Your task to perform on an android device: Open ESPN.com Image 0: 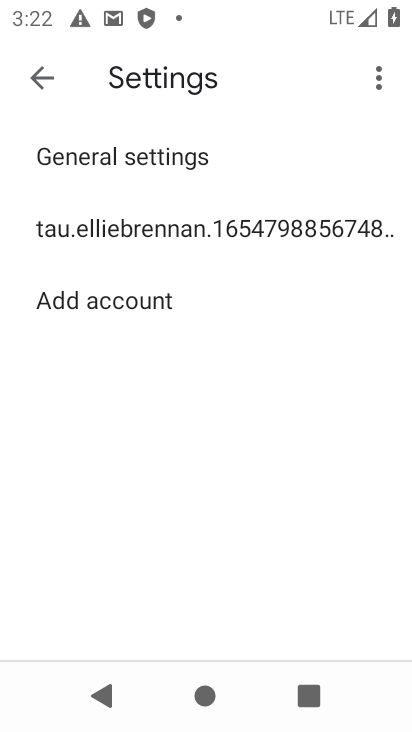
Step 0: press home button
Your task to perform on an android device: Open ESPN.com Image 1: 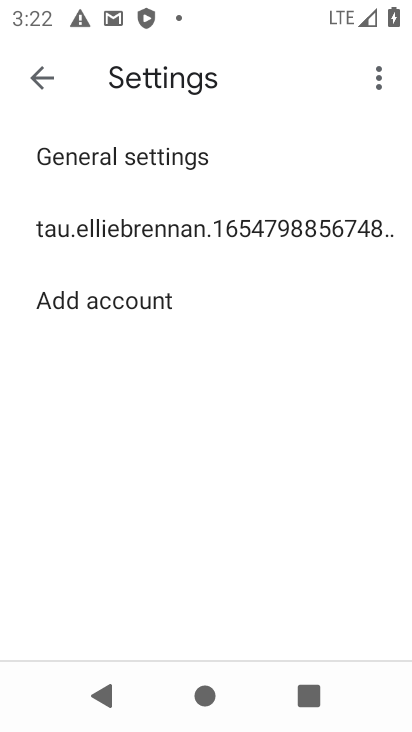
Step 1: press home button
Your task to perform on an android device: Open ESPN.com Image 2: 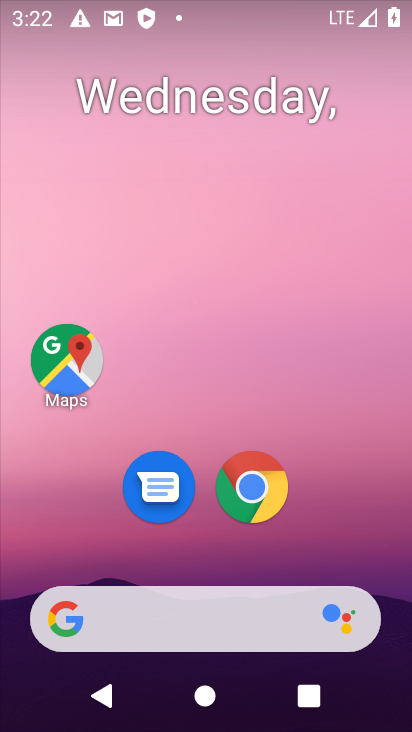
Step 2: drag from (334, 543) to (230, 0)
Your task to perform on an android device: Open ESPN.com Image 3: 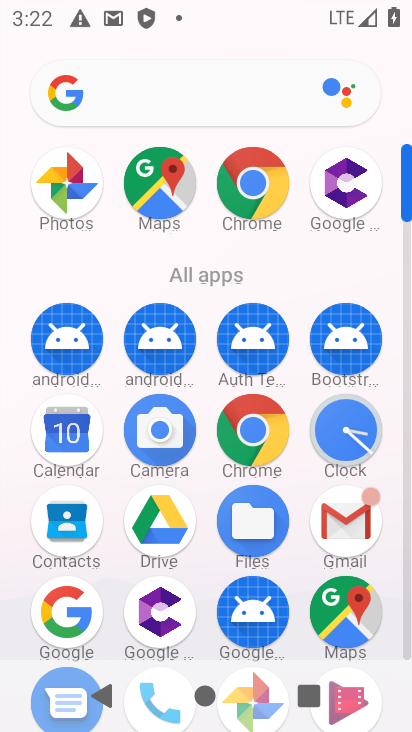
Step 3: click (255, 434)
Your task to perform on an android device: Open ESPN.com Image 4: 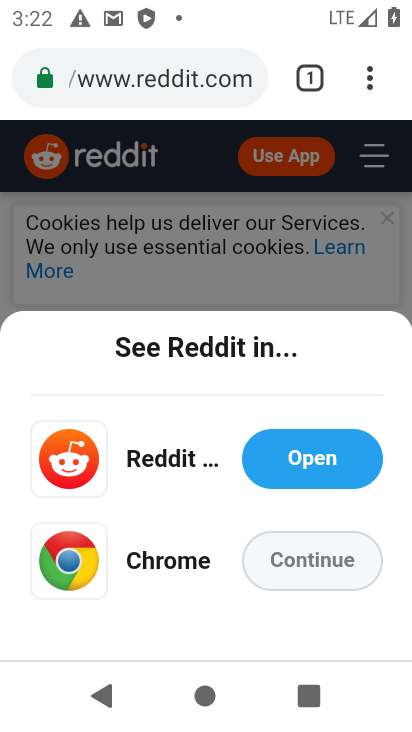
Step 4: click (232, 88)
Your task to perform on an android device: Open ESPN.com Image 5: 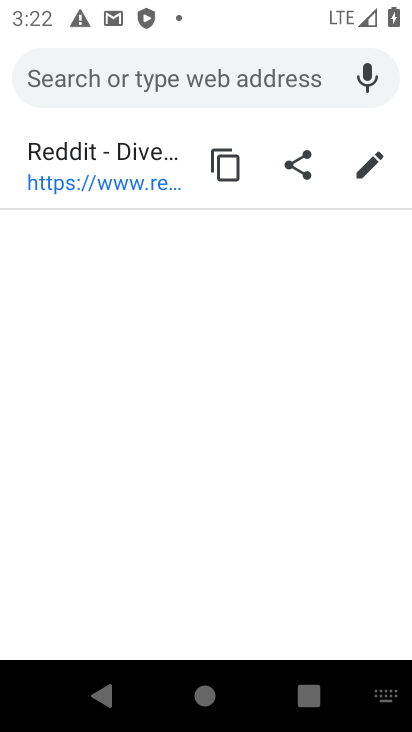
Step 5: type "espn.com"
Your task to perform on an android device: Open ESPN.com Image 6: 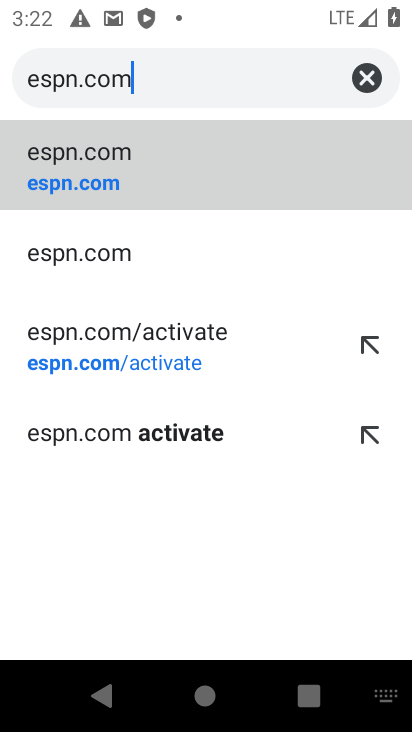
Step 6: click (105, 158)
Your task to perform on an android device: Open ESPN.com Image 7: 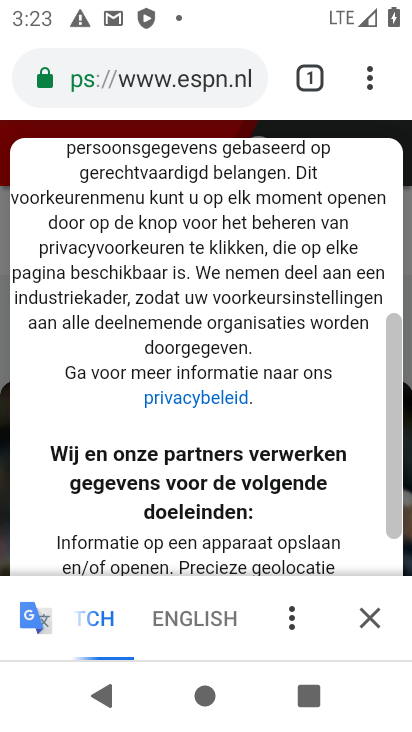
Step 7: task complete